Your task to perform on an android device: Find coffee shops on Maps Image 0: 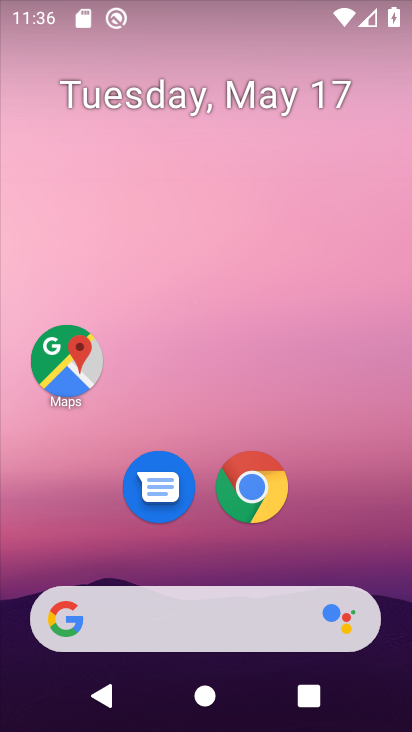
Step 0: drag from (351, 534) to (300, 122)
Your task to perform on an android device: Find coffee shops on Maps Image 1: 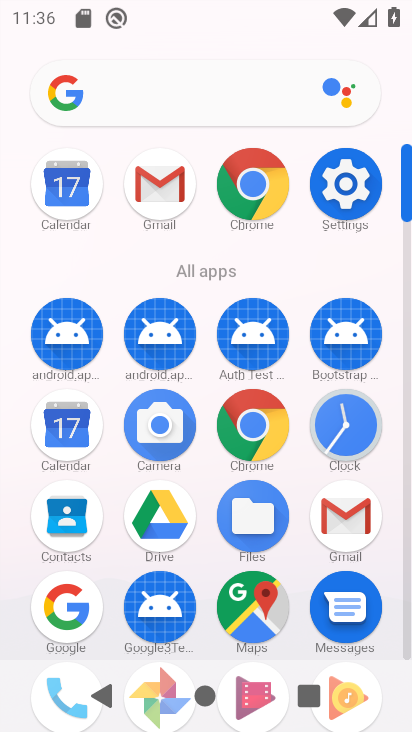
Step 1: click (241, 599)
Your task to perform on an android device: Find coffee shops on Maps Image 2: 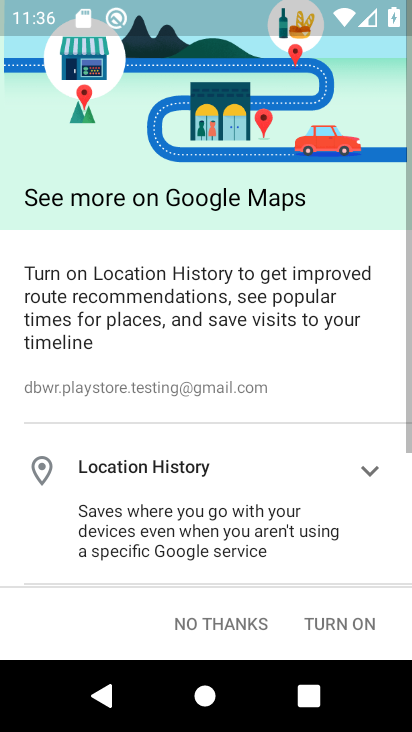
Step 2: press back button
Your task to perform on an android device: Find coffee shops on Maps Image 3: 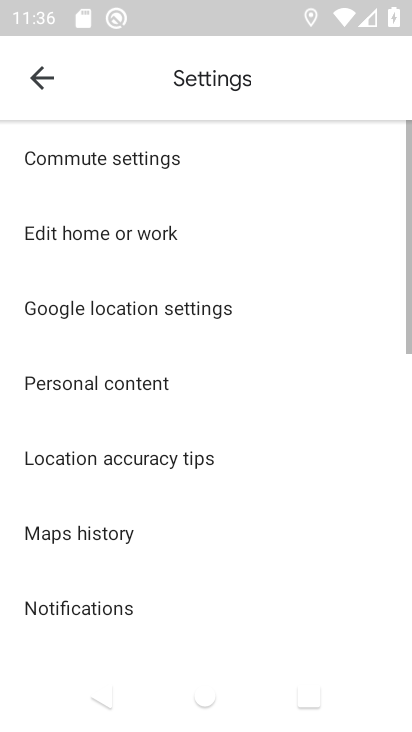
Step 3: press back button
Your task to perform on an android device: Find coffee shops on Maps Image 4: 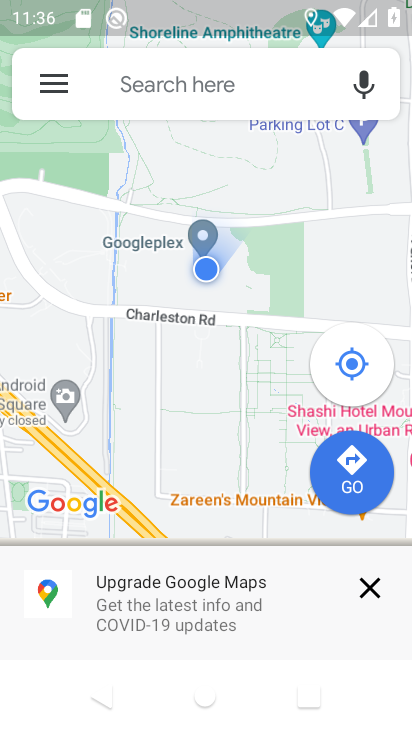
Step 4: click (180, 87)
Your task to perform on an android device: Find coffee shops on Maps Image 5: 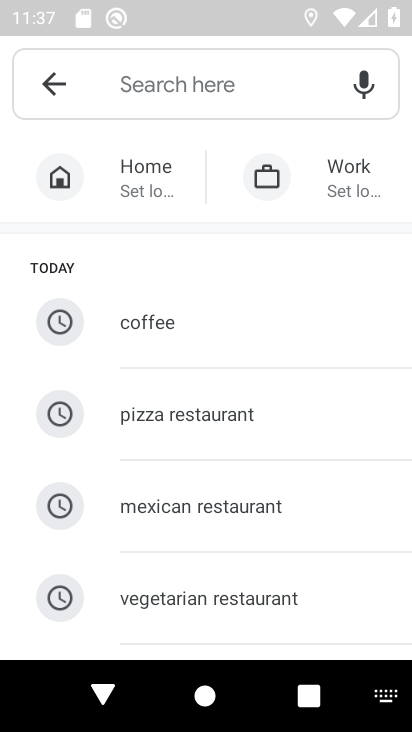
Step 5: click (212, 332)
Your task to perform on an android device: Find coffee shops on Maps Image 6: 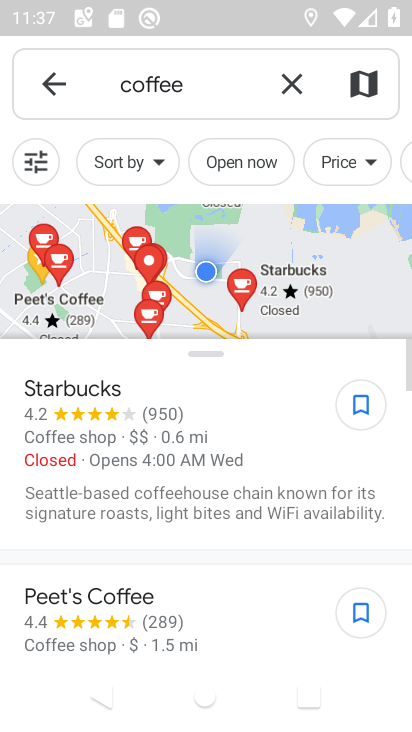
Step 6: task complete